Your task to perform on an android device: Go to Amazon Image 0: 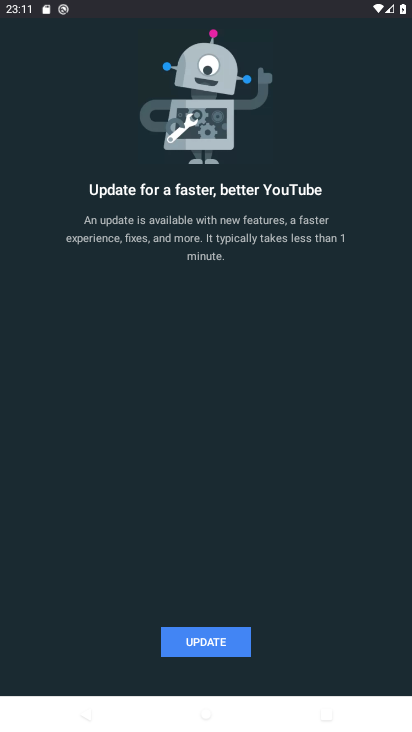
Step 0: press home button
Your task to perform on an android device: Go to Amazon Image 1: 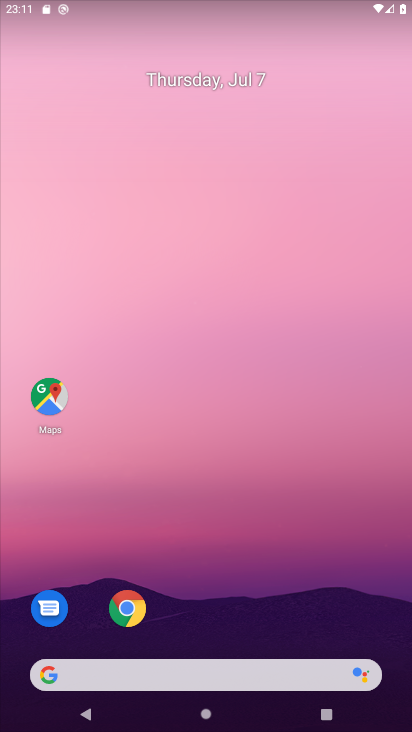
Step 1: drag from (172, 554) to (174, 156)
Your task to perform on an android device: Go to Amazon Image 2: 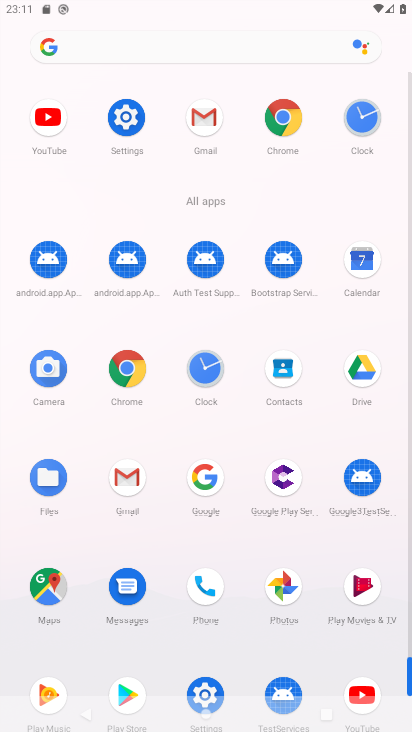
Step 2: click (282, 107)
Your task to perform on an android device: Go to Amazon Image 3: 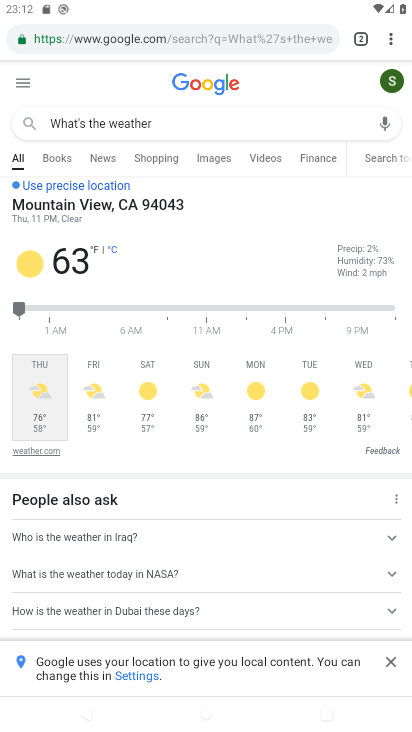
Step 3: click (388, 34)
Your task to perform on an android device: Go to Amazon Image 4: 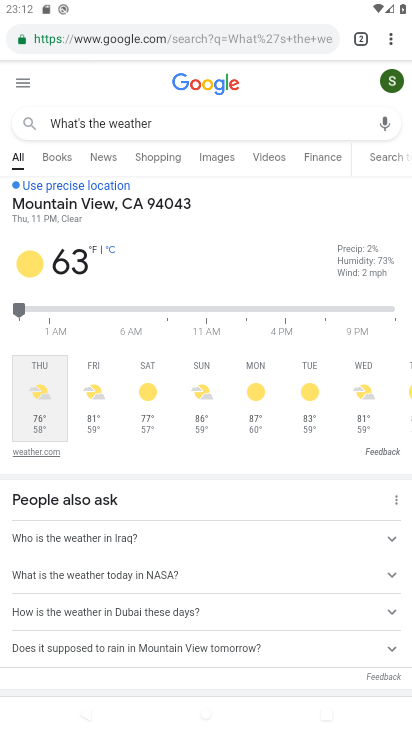
Step 4: click (386, 26)
Your task to perform on an android device: Go to Amazon Image 5: 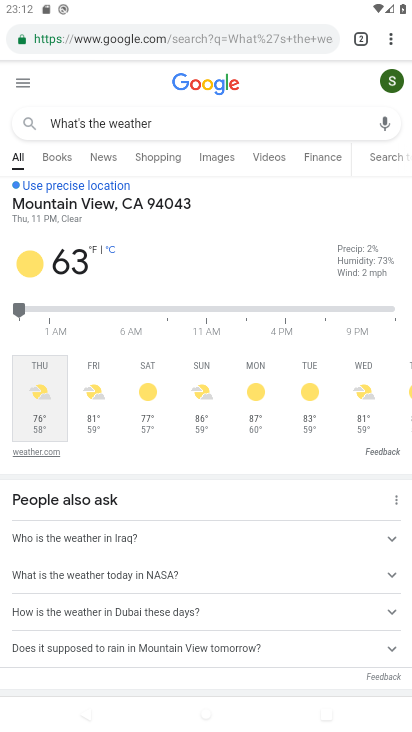
Step 5: click (384, 28)
Your task to perform on an android device: Go to Amazon Image 6: 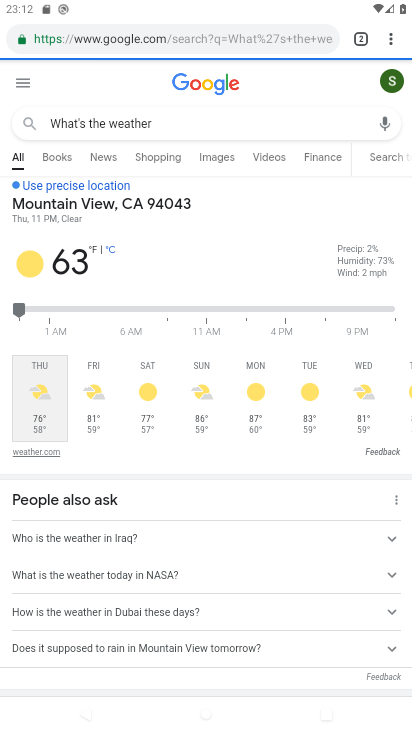
Step 6: click (386, 42)
Your task to perform on an android device: Go to Amazon Image 7: 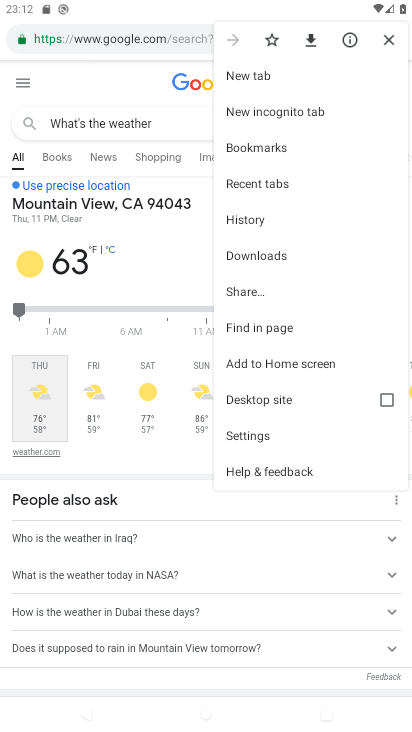
Step 7: click (247, 79)
Your task to perform on an android device: Go to Amazon Image 8: 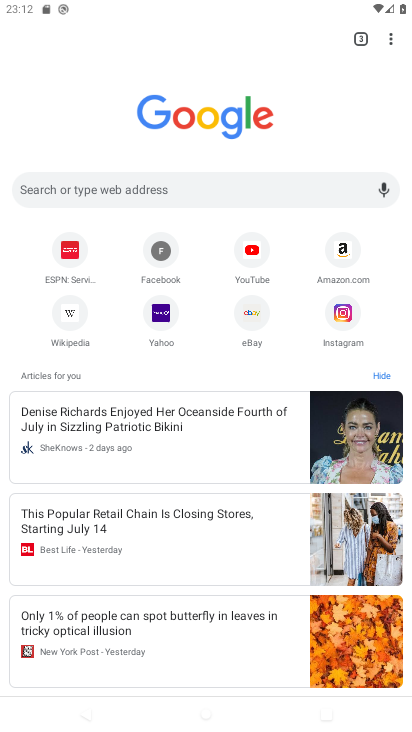
Step 8: click (344, 245)
Your task to perform on an android device: Go to Amazon Image 9: 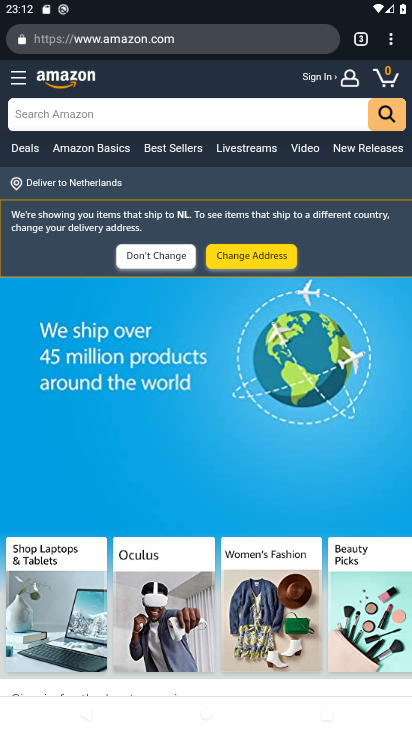
Step 9: task complete